Your task to perform on an android device: delete browsing data in the chrome app Image 0: 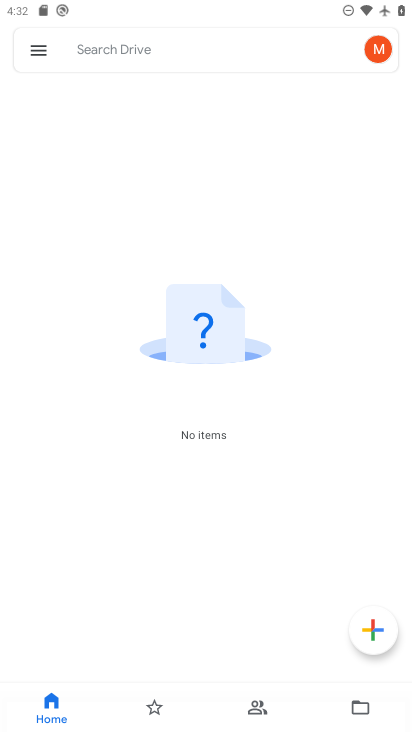
Step 0: drag from (223, 660) to (206, 451)
Your task to perform on an android device: delete browsing data in the chrome app Image 1: 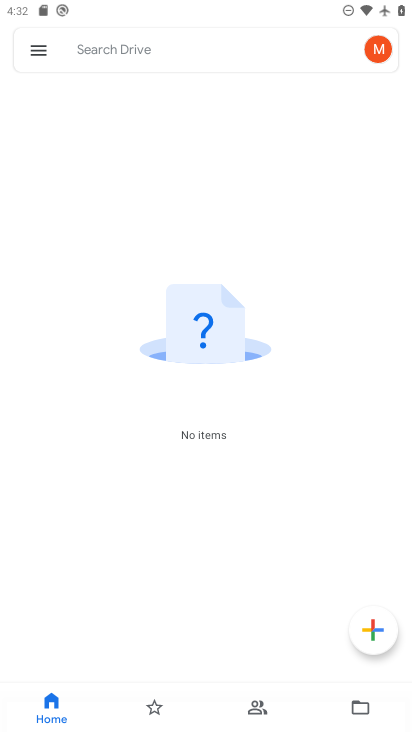
Step 1: press home button
Your task to perform on an android device: delete browsing data in the chrome app Image 2: 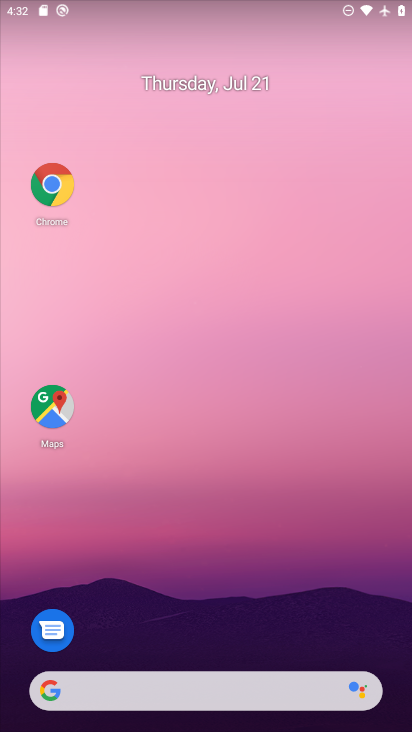
Step 2: drag from (220, 663) to (382, 3)
Your task to perform on an android device: delete browsing data in the chrome app Image 3: 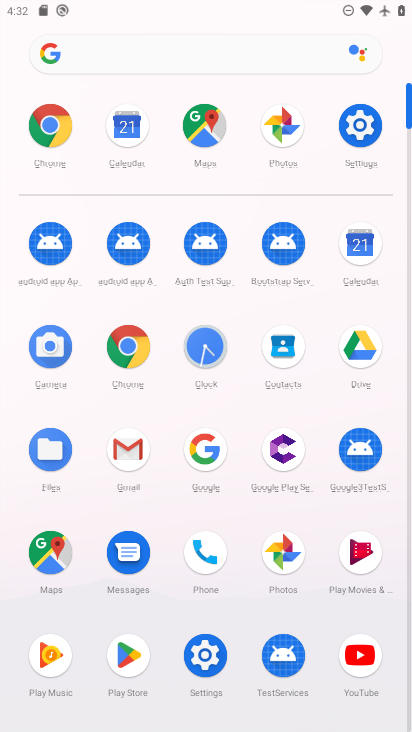
Step 3: click (136, 357)
Your task to perform on an android device: delete browsing data in the chrome app Image 4: 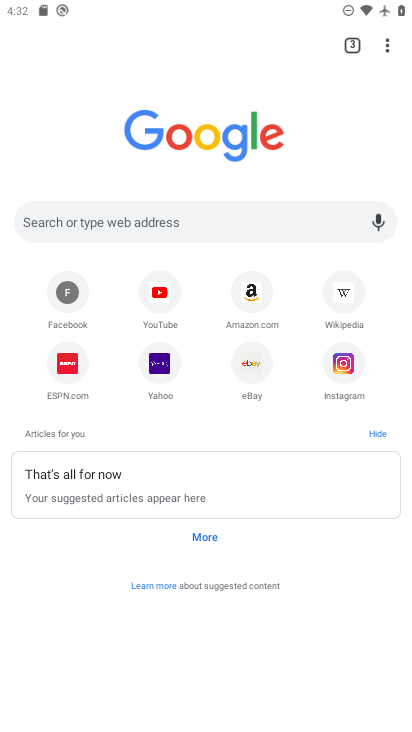
Step 4: click (391, 48)
Your task to perform on an android device: delete browsing data in the chrome app Image 5: 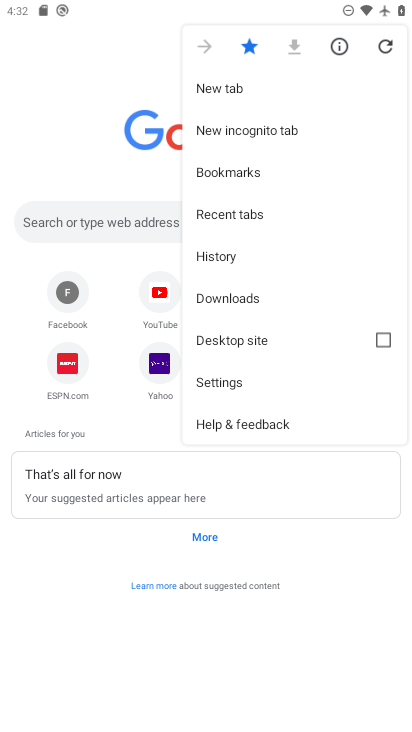
Step 5: click (229, 261)
Your task to perform on an android device: delete browsing data in the chrome app Image 6: 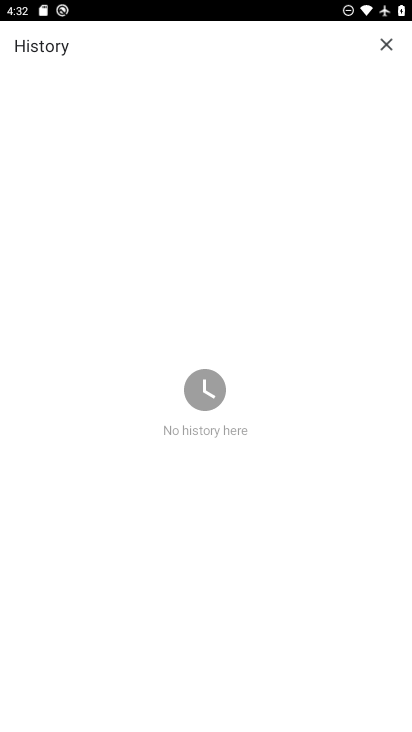
Step 6: click (385, 43)
Your task to perform on an android device: delete browsing data in the chrome app Image 7: 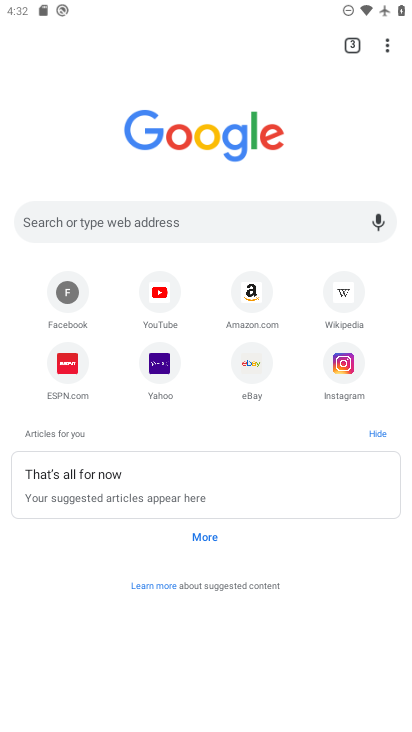
Step 7: task complete